Your task to perform on an android device: turn on showing notifications on the lock screen Image 0: 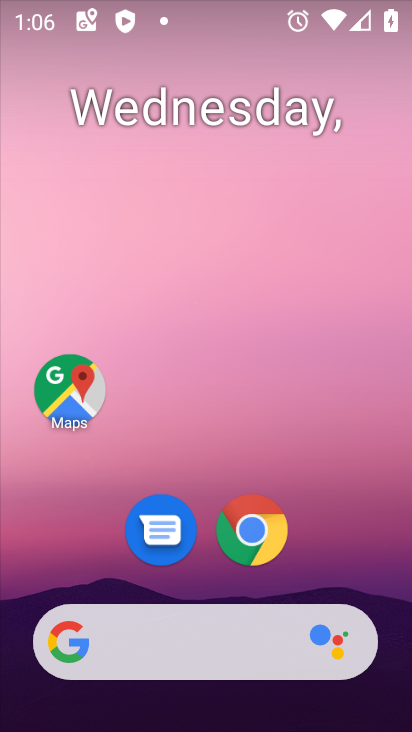
Step 0: drag from (208, 513) to (198, 270)
Your task to perform on an android device: turn on showing notifications on the lock screen Image 1: 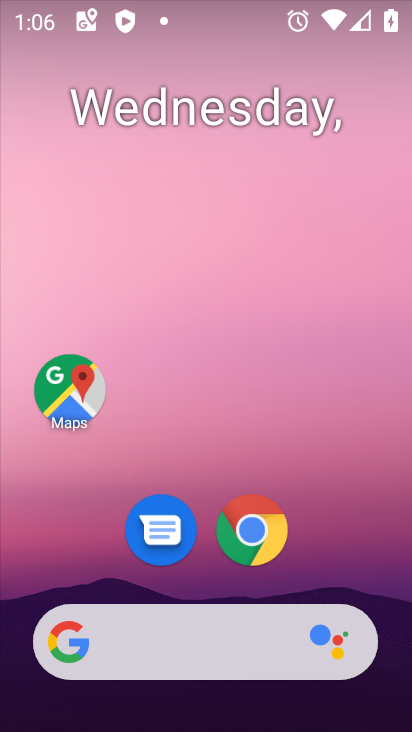
Step 1: drag from (207, 586) to (228, 99)
Your task to perform on an android device: turn on showing notifications on the lock screen Image 2: 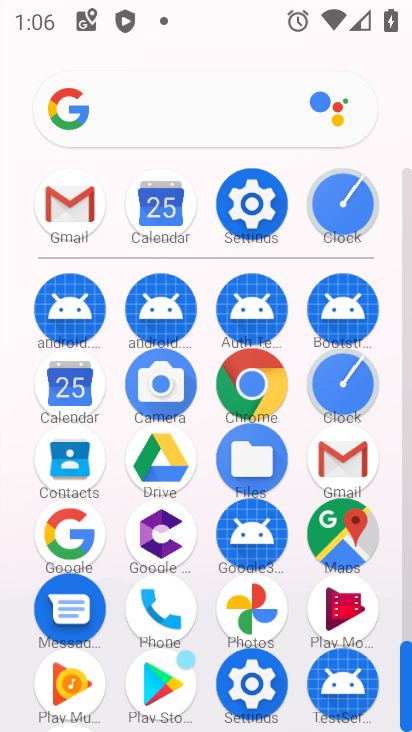
Step 2: click (260, 199)
Your task to perform on an android device: turn on showing notifications on the lock screen Image 3: 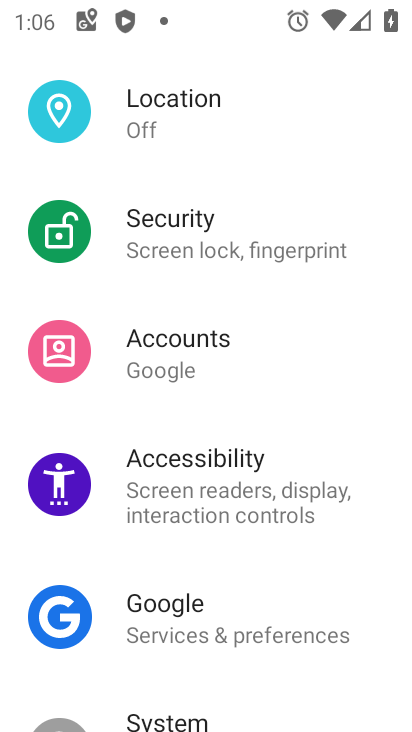
Step 3: drag from (197, 572) to (195, 218)
Your task to perform on an android device: turn on showing notifications on the lock screen Image 4: 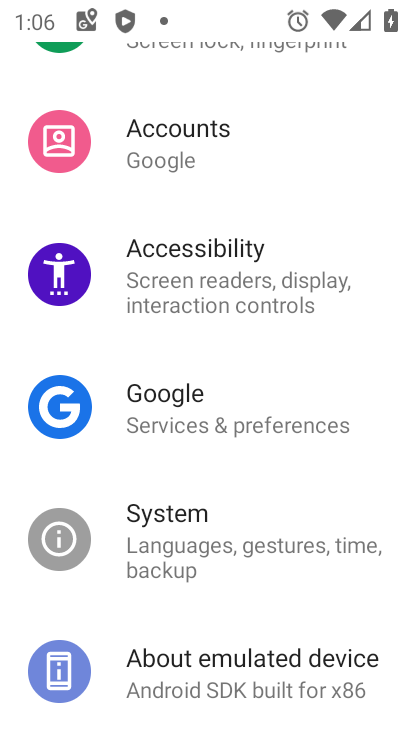
Step 4: drag from (219, 200) to (193, 609)
Your task to perform on an android device: turn on showing notifications on the lock screen Image 5: 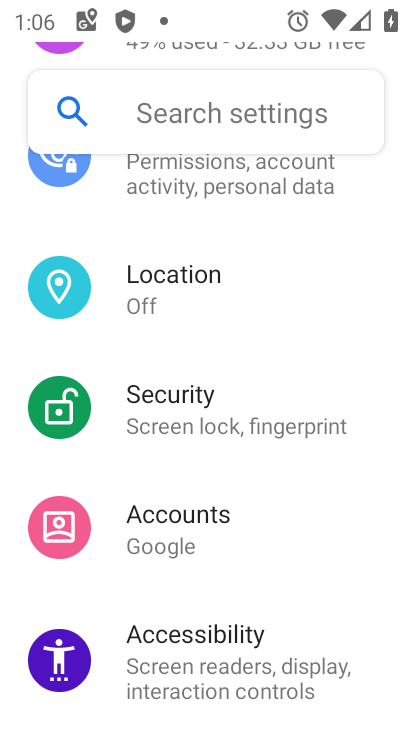
Step 5: drag from (213, 210) to (203, 631)
Your task to perform on an android device: turn on showing notifications on the lock screen Image 6: 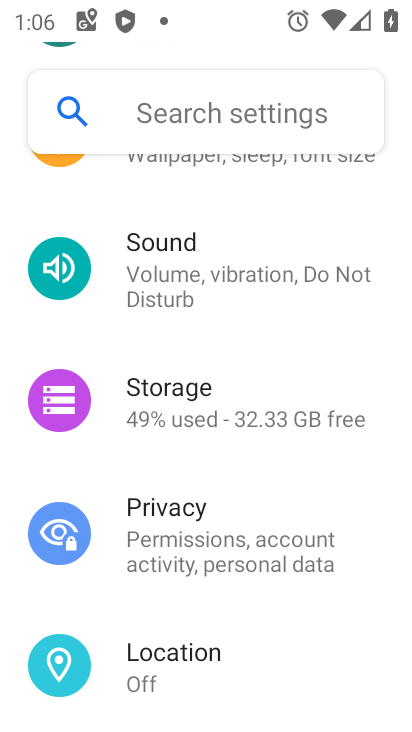
Step 6: drag from (240, 367) to (207, 670)
Your task to perform on an android device: turn on showing notifications on the lock screen Image 7: 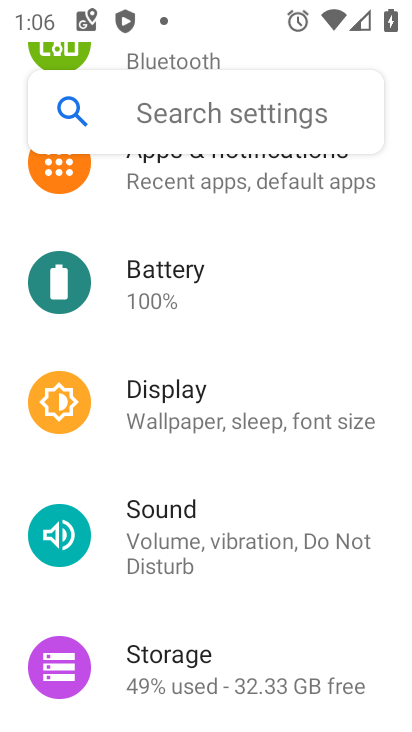
Step 7: drag from (209, 200) to (210, 588)
Your task to perform on an android device: turn on showing notifications on the lock screen Image 8: 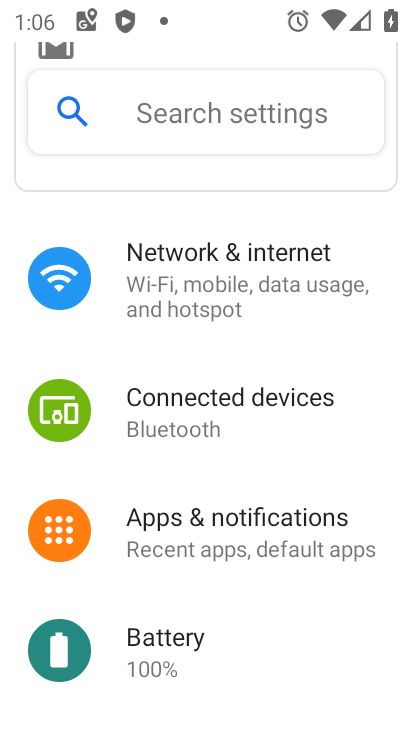
Step 8: click (211, 542)
Your task to perform on an android device: turn on showing notifications on the lock screen Image 9: 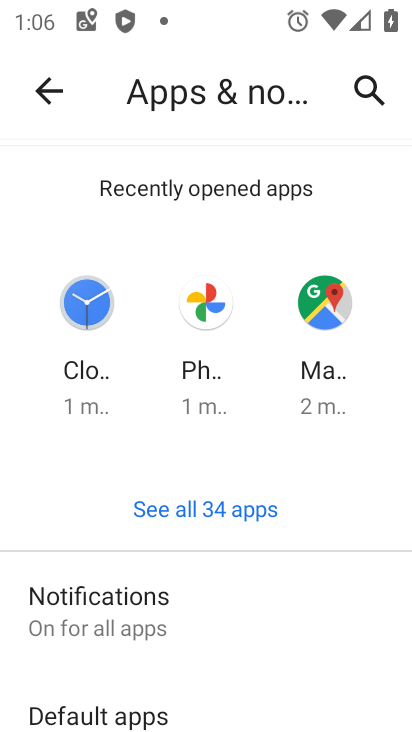
Step 9: click (98, 620)
Your task to perform on an android device: turn on showing notifications on the lock screen Image 10: 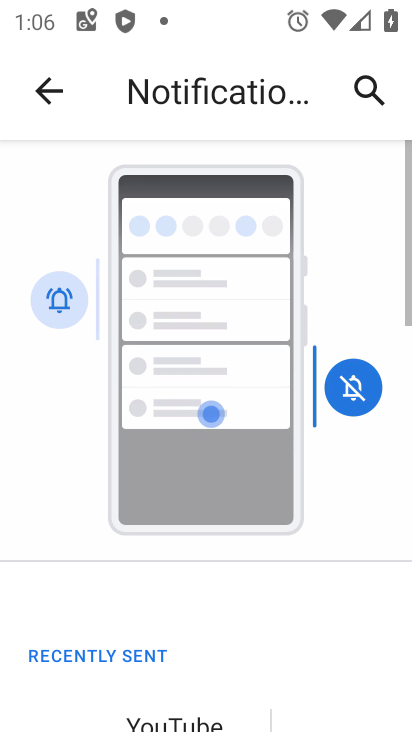
Step 10: drag from (116, 665) to (152, 206)
Your task to perform on an android device: turn on showing notifications on the lock screen Image 11: 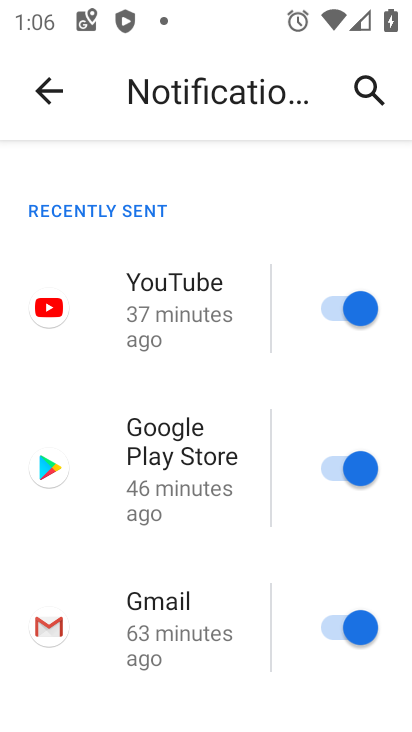
Step 11: drag from (135, 562) to (200, 212)
Your task to perform on an android device: turn on showing notifications on the lock screen Image 12: 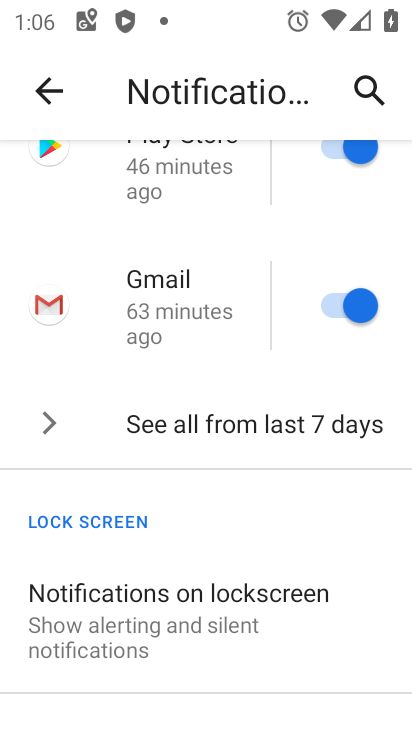
Step 12: click (178, 612)
Your task to perform on an android device: turn on showing notifications on the lock screen Image 13: 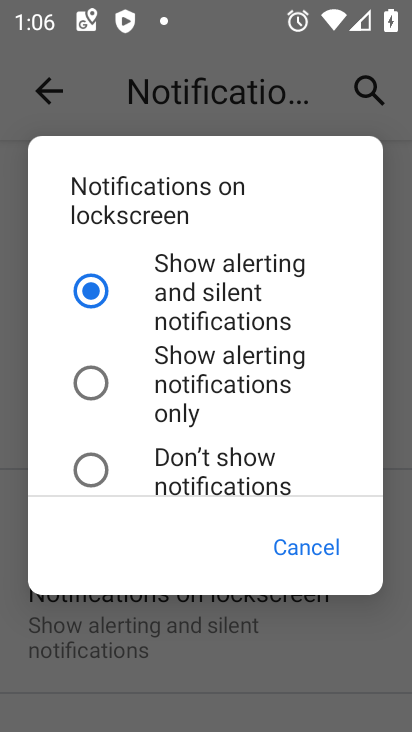
Step 13: task complete